Your task to perform on an android device: Play the last video I watched on Youtube Image 0: 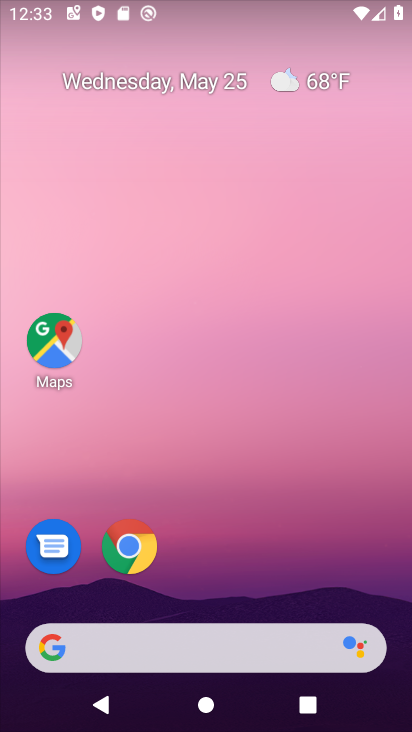
Step 0: drag from (337, 569) to (319, 199)
Your task to perform on an android device: Play the last video I watched on Youtube Image 1: 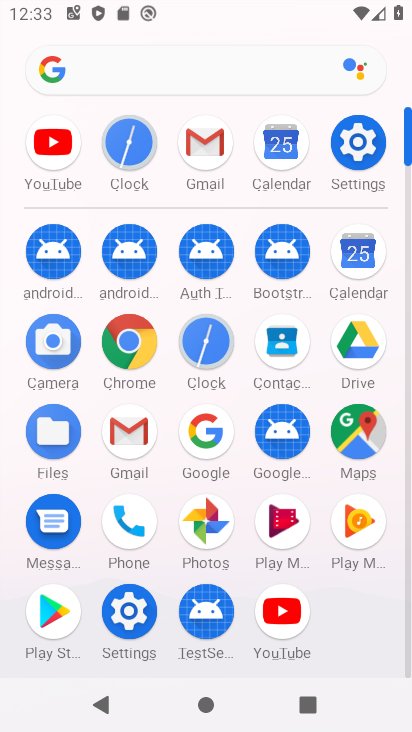
Step 1: click (47, 154)
Your task to perform on an android device: Play the last video I watched on Youtube Image 2: 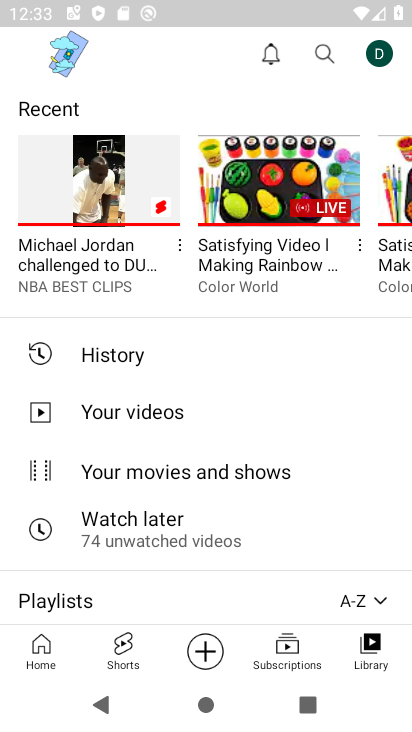
Step 2: click (94, 149)
Your task to perform on an android device: Play the last video I watched on Youtube Image 3: 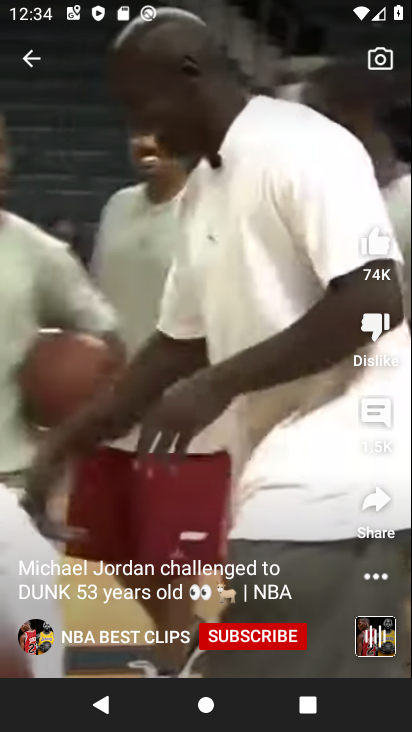
Step 3: task complete